Your task to perform on an android device: turn smart compose on in the gmail app Image 0: 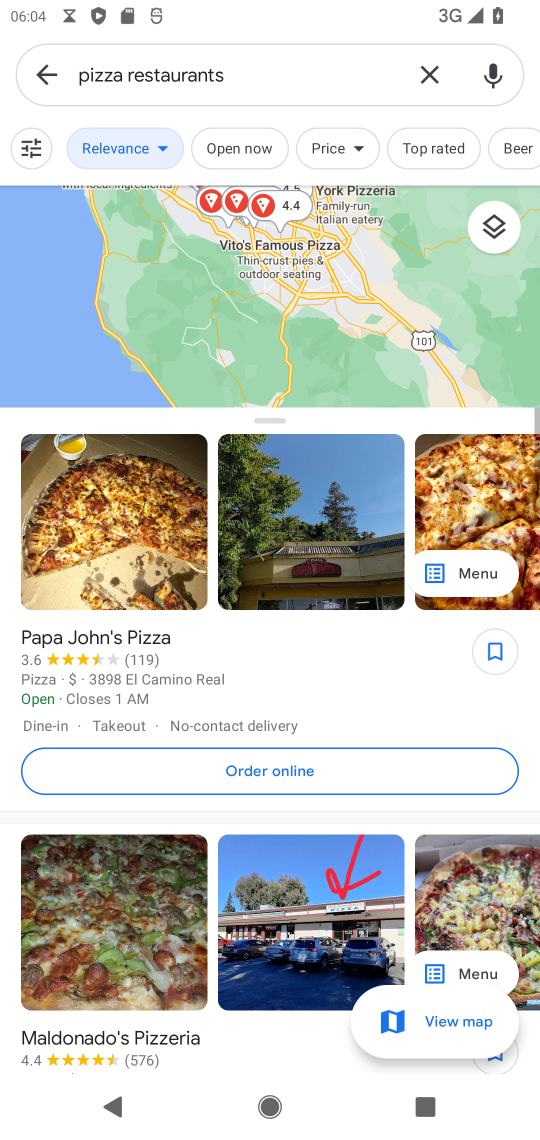
Step 0: press home button
Your task to perform on an android device: turn smart compose on in the gmail app Image 1: 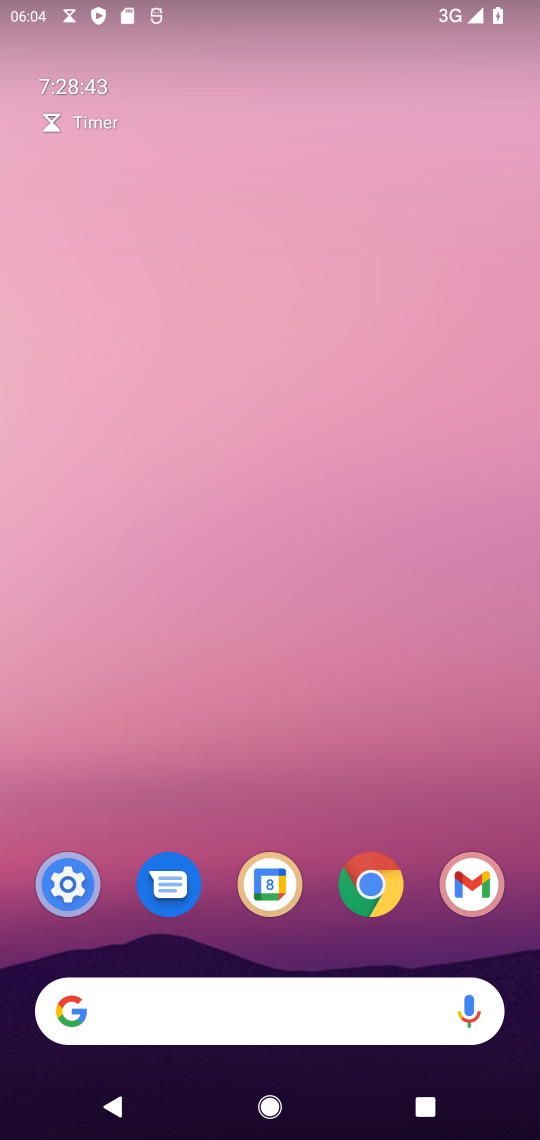
Step 1: click (481, 878)
Your task to perform on an android device: turn smart compose on in the gmail app Image 2: 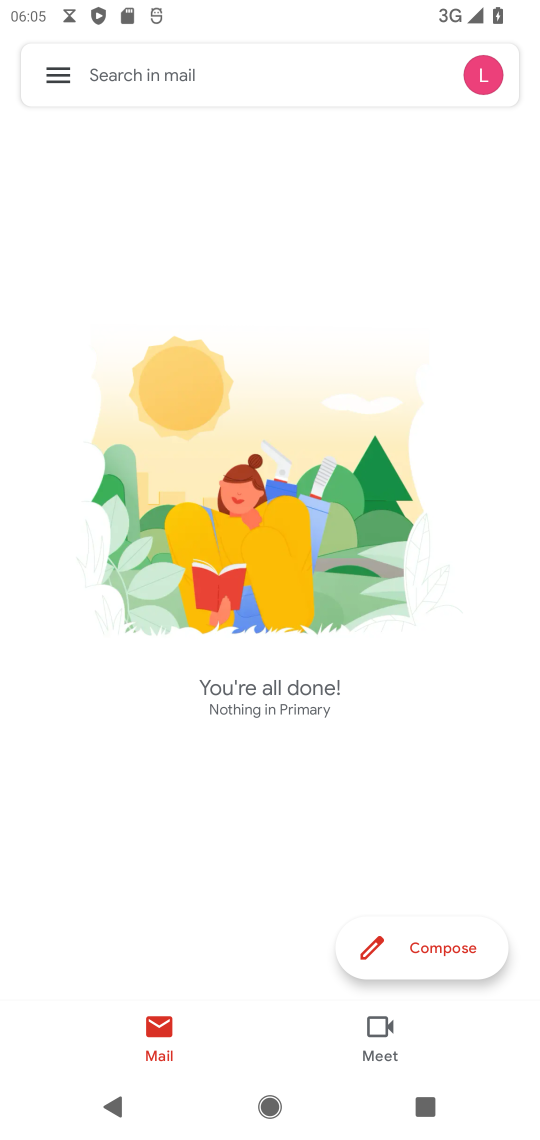
Step 2: click (45, 73)
Your task to perform on an android device: turn smart compose on in the gmail app Image 3: 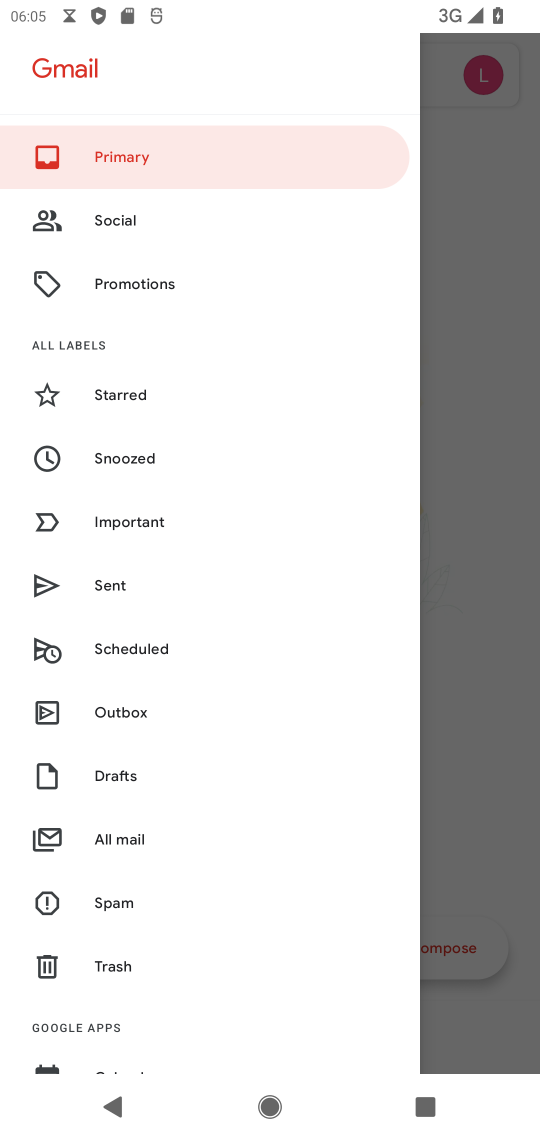
Step 3: drag from (180, 1043) to (124, 470)
Your task to perform on an android device: turn smart compose on in the gmail app Image 4: 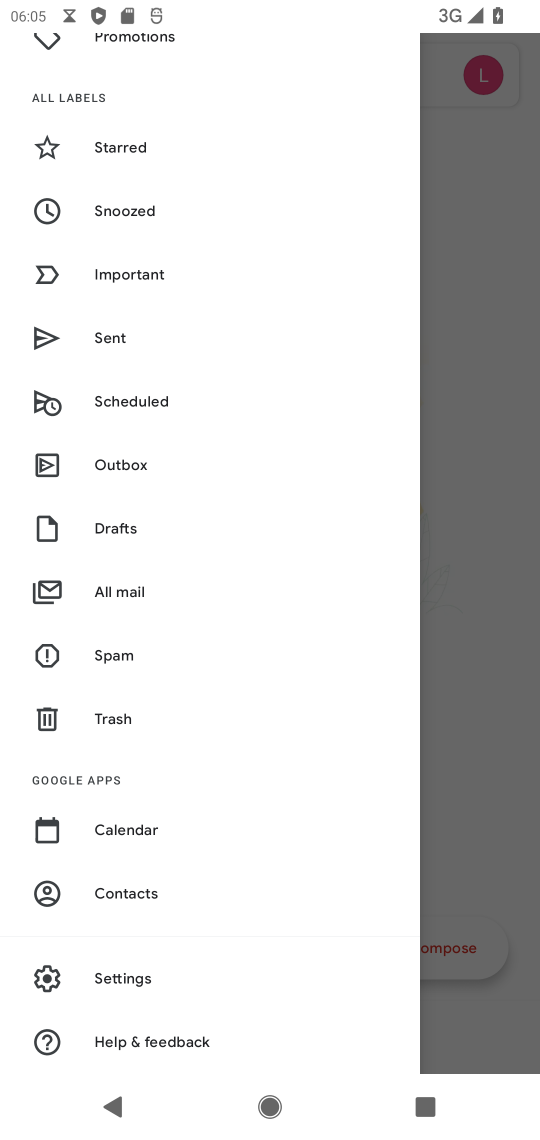
Step 4: click (169, 989)
Your task to perform on an android device: turn smart compose on in the gmail app Image 5: 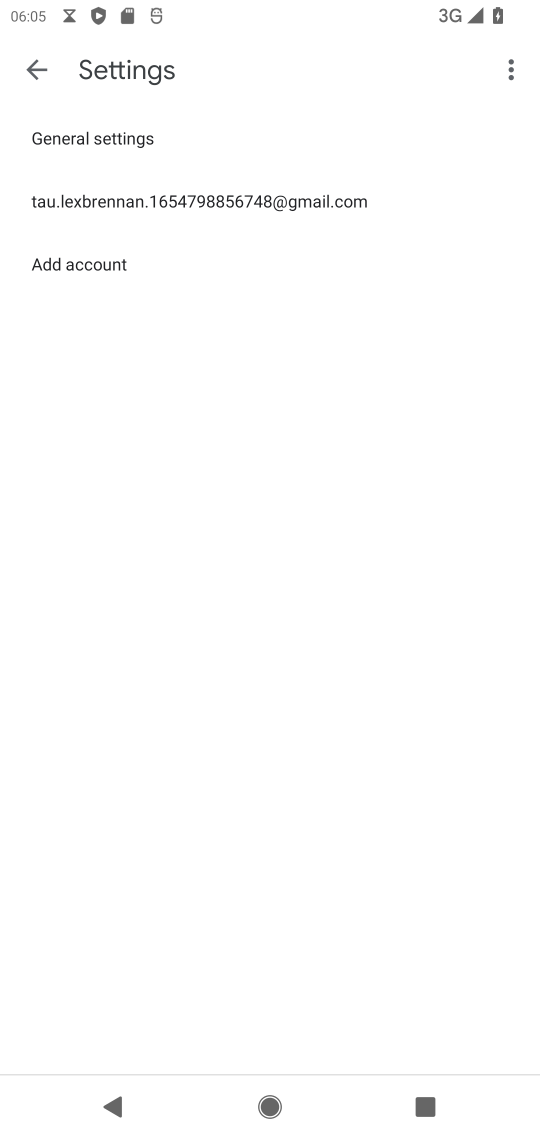
Step 5: click (267, 216)
Your task to perform on an android device: turn smart compose on in the gmail app Image 6: 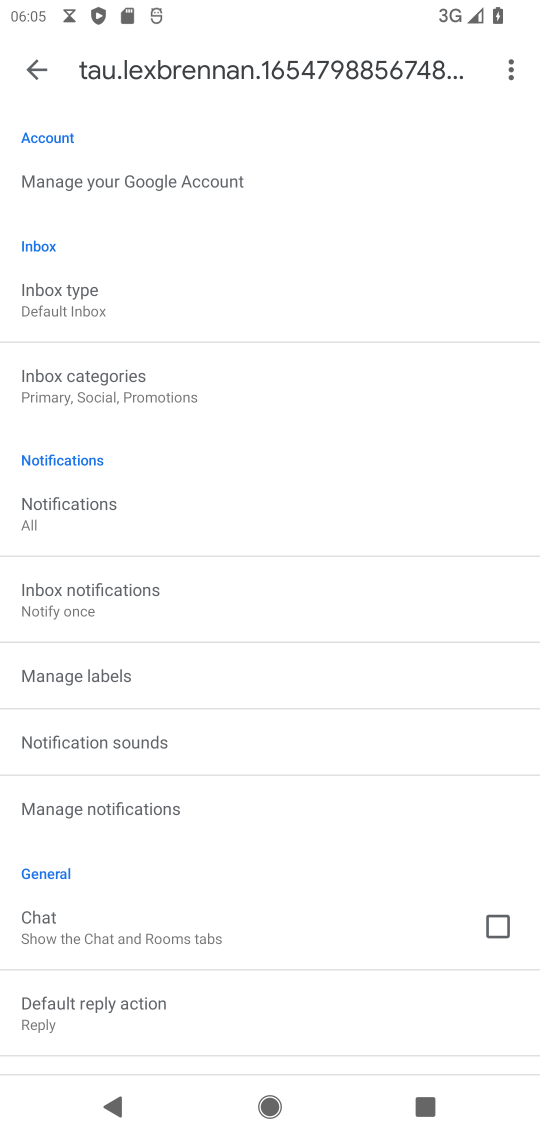
Step 6: task complete